Your task to perform on an android device: toggle location history Image 0: 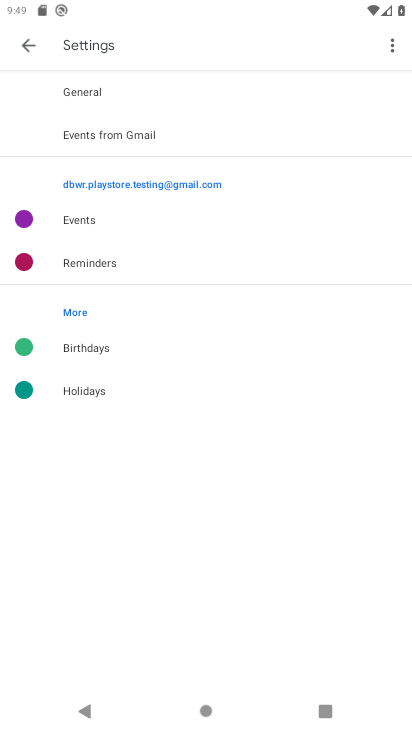
Step 0: press back button
Your task to perform on an android device: toggle location history Image 1: 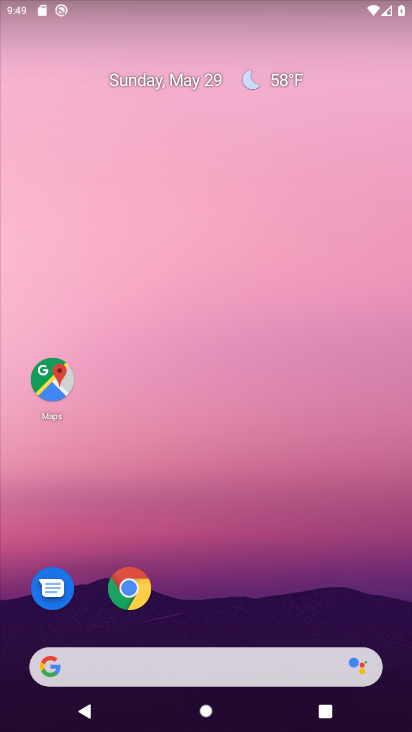
Step 1: drag from (230, 470) to (181, 12)
Your task to perform on an android device: toggle location history Image 2: 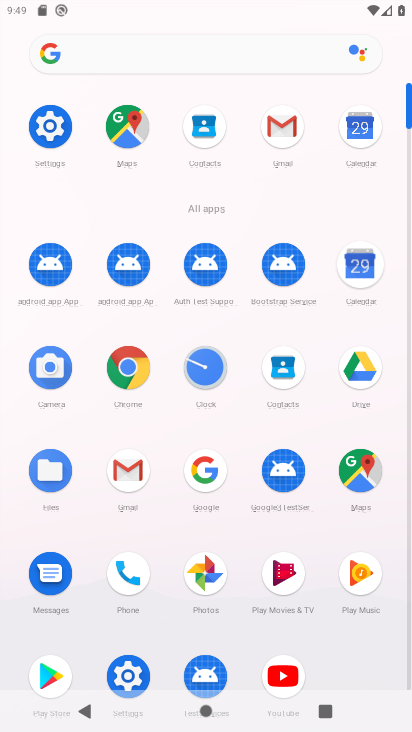
Step 2: click (54, 128)
Your task to perform on an android device: toggle location history Image 3: 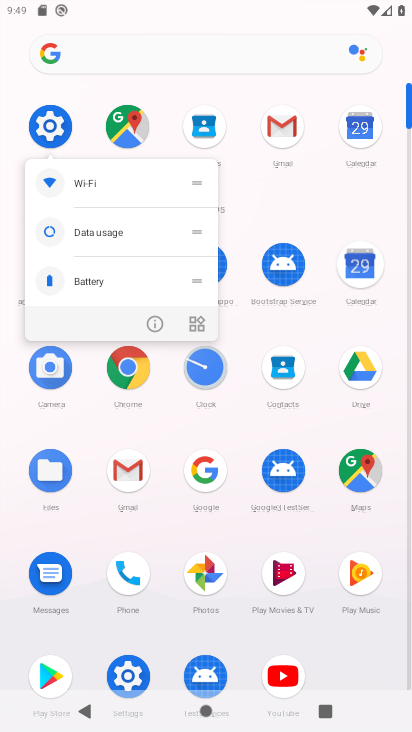
Step 3: click (57, 126)
Your task to perform on an android device: toggle location history Image 4: 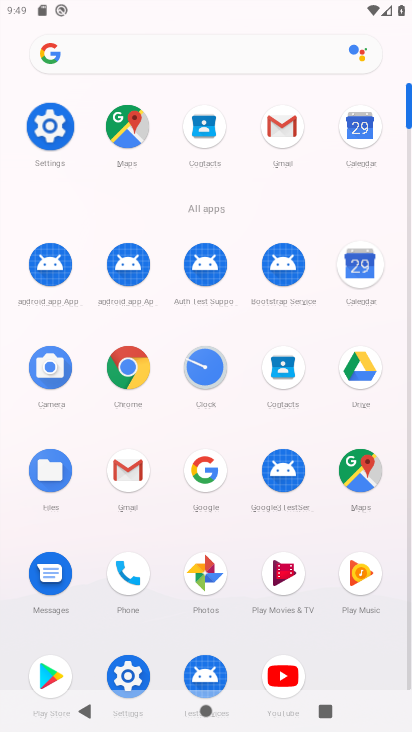
Step 4: click (59, 125)
Your task to perform on an android device: toggle location history Image 5: 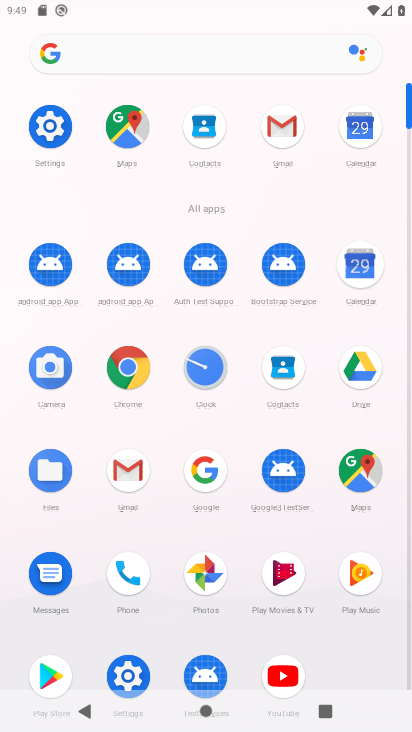
Step 5: click (60, 124)
Your task to perform on an android device: toggle location history Image 6: 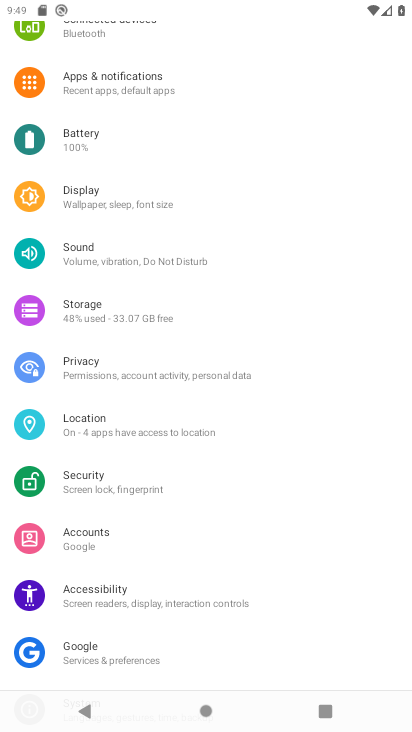
Step 6: click (92, 422)
Your task to perform on an android device: toggle location history Image 7: 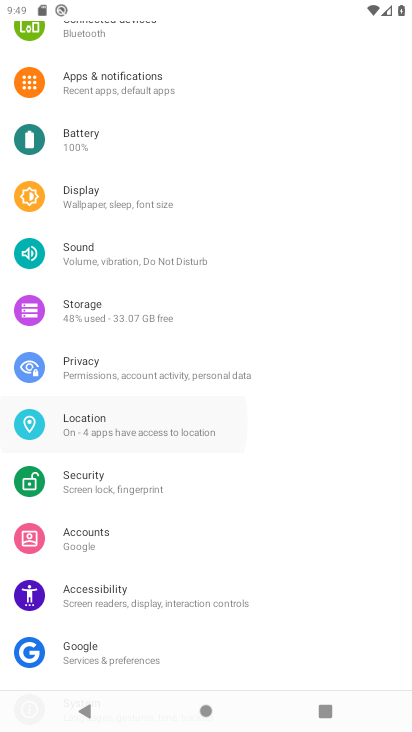
Step 7: click (92, 422)
Your task to perform on an android device: toggle location history Image 8: 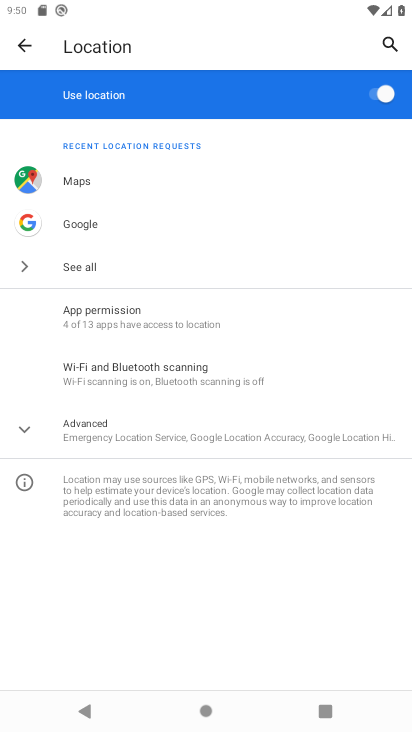
Step 8: click (95, 430)
Your task to perform on an android device: toggle location history Image 9: 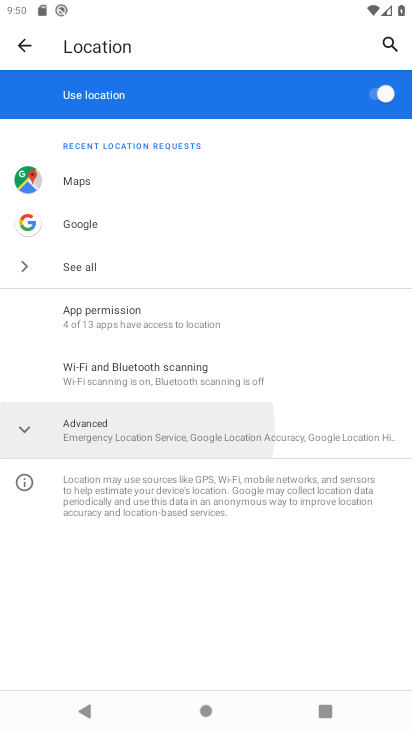
Step 9: click (95, 430)
Your task to perform on an android device: toggle location history Image 10: 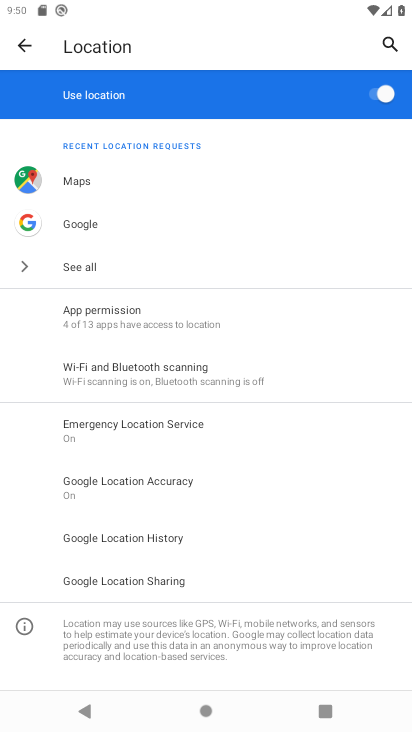
Step 10: click (119, 532)
Your task to perform on an android device: toggle location history Image 11: 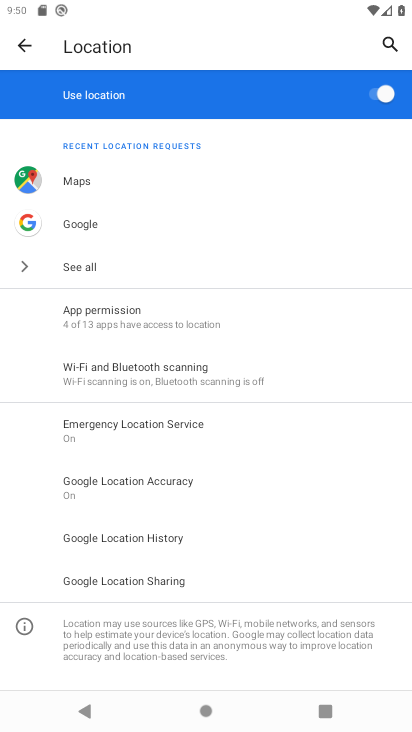
Step 11: click (121, 535)
Your task to perform on an android device: toggle location history Image 12: 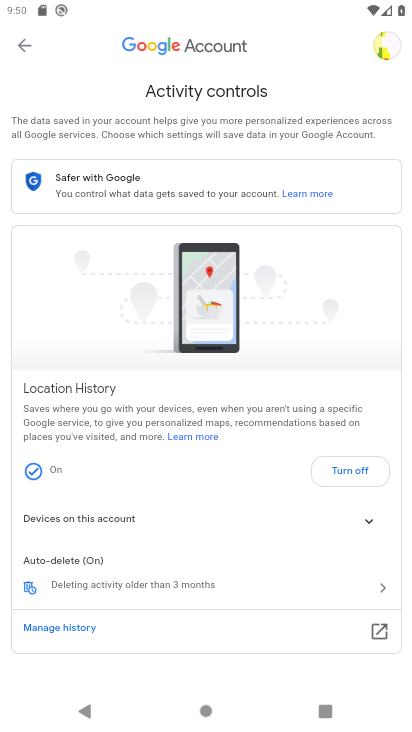
Step 12: drag from (277, 514) to (216, 274)
Your task to perform on an android device: toggle location history Image 13: 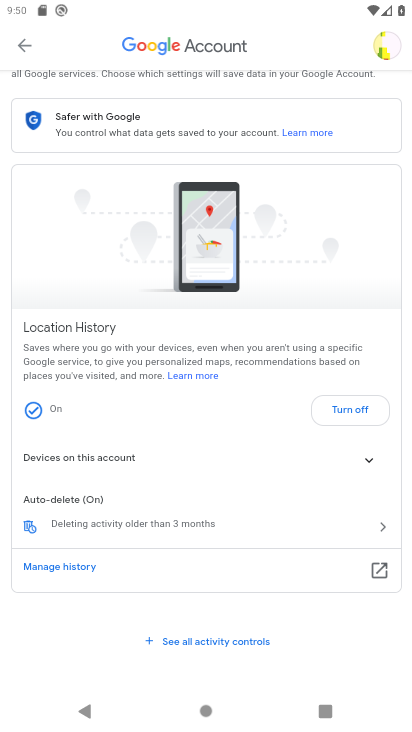
Step 13: click (353, 405)
Your task to perform on an android device: toggle location history Image 14: 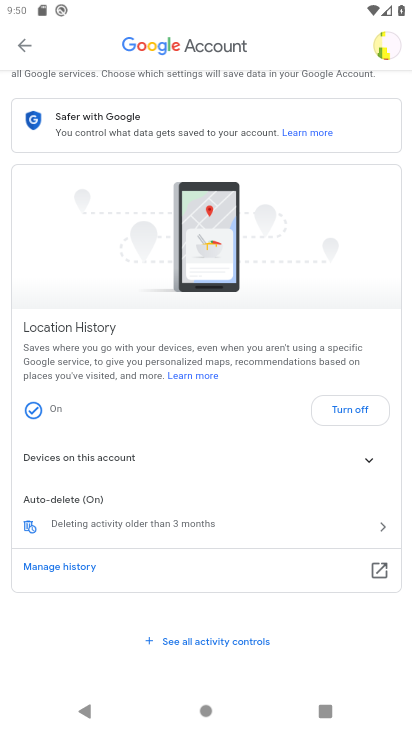
Step 14: click (353, 405)
Your task to perform on an android device: toggle location history Image 15: 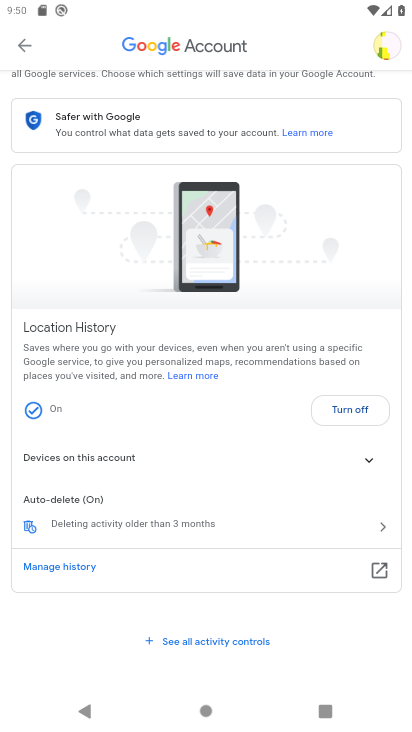
Step 15: click (353, 405)
Your task to perform on an android device: toggle location history Image 16: 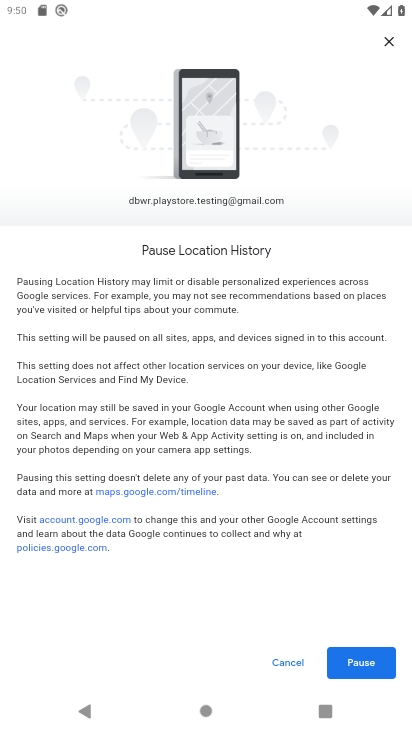
Step 16: click (350, 658)
Your task to perform on an android device: toggle location history Image 17: 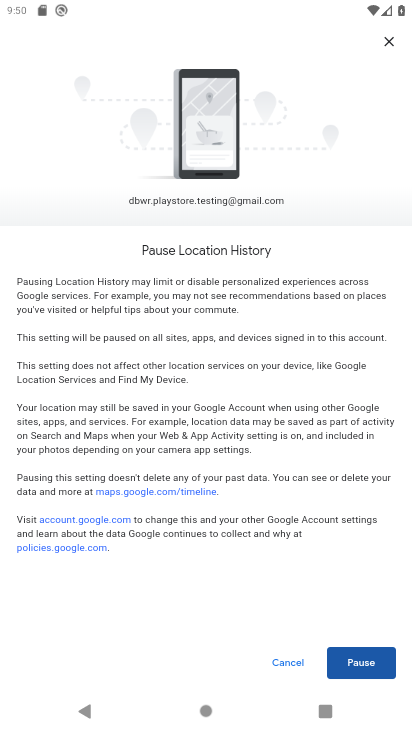
Step 17: task complete